Your task to perform on an android device: toggle priority inbox in the gmail app Image 0: 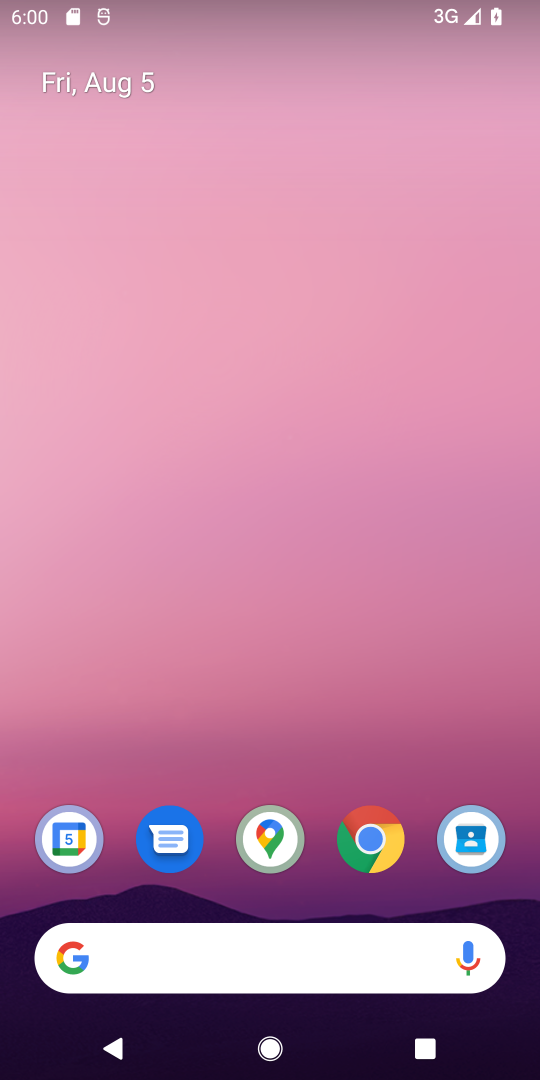
Step 0: drag from (222, 740) to (144, 129)
Your task to perform on an android device: toggle priority inbox in the gmail app Image 1: 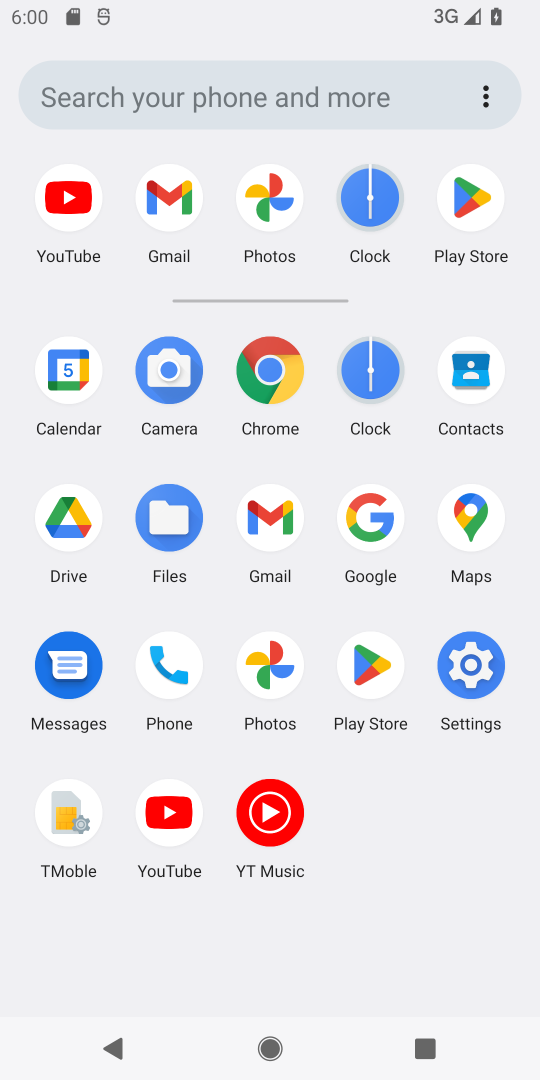
Step 1: click (154, 220)
Your task to perform on an android device: toggle priority inbox in the gmail app Image 2: 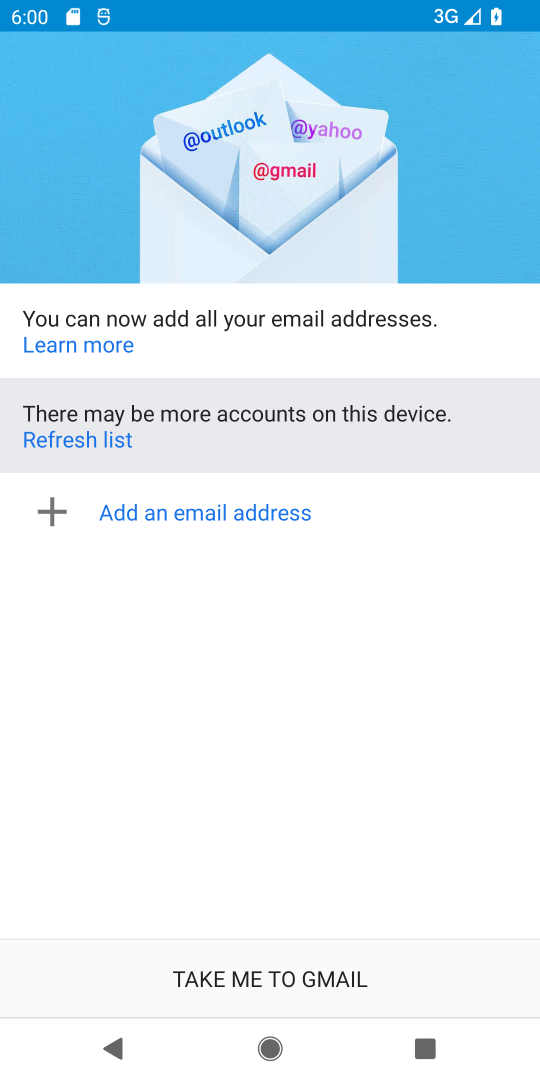
Step 2: click (342, 964)
Your task to perform on an android device: toggle priority inbox in the gmail app Image 3: 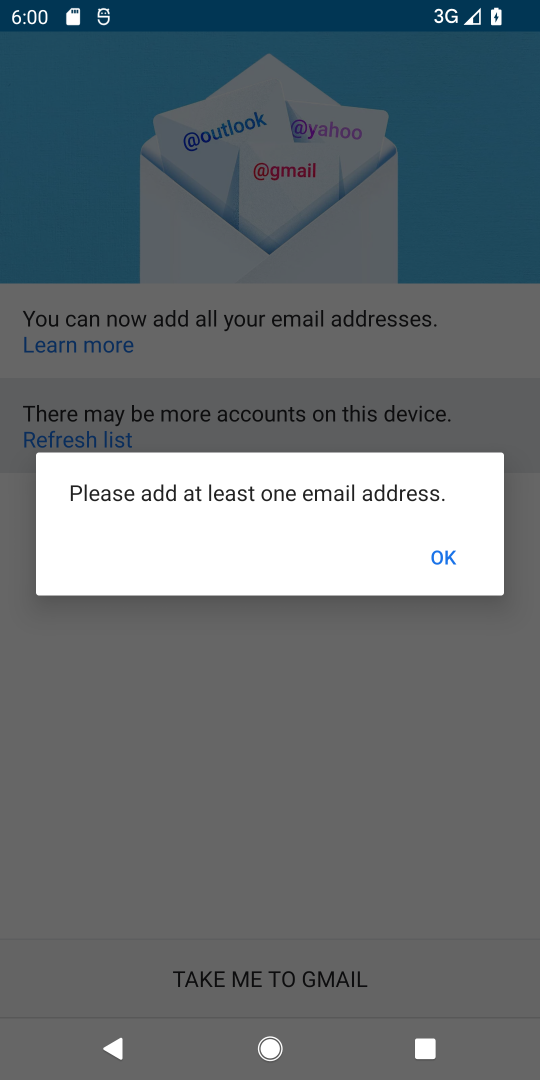
Step 3: task complete